Your task to perform on an android device: toggle javascript in the chrome app Image 0: 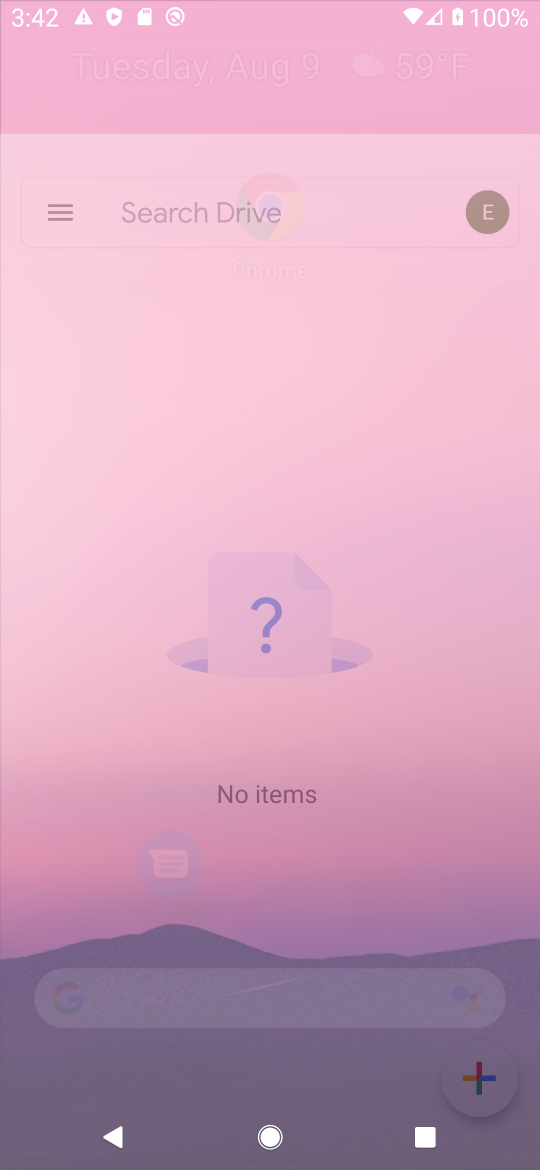
Step 0: press back button
Your task to perform on an android device: toggle javascript in the chrome app Image 1: 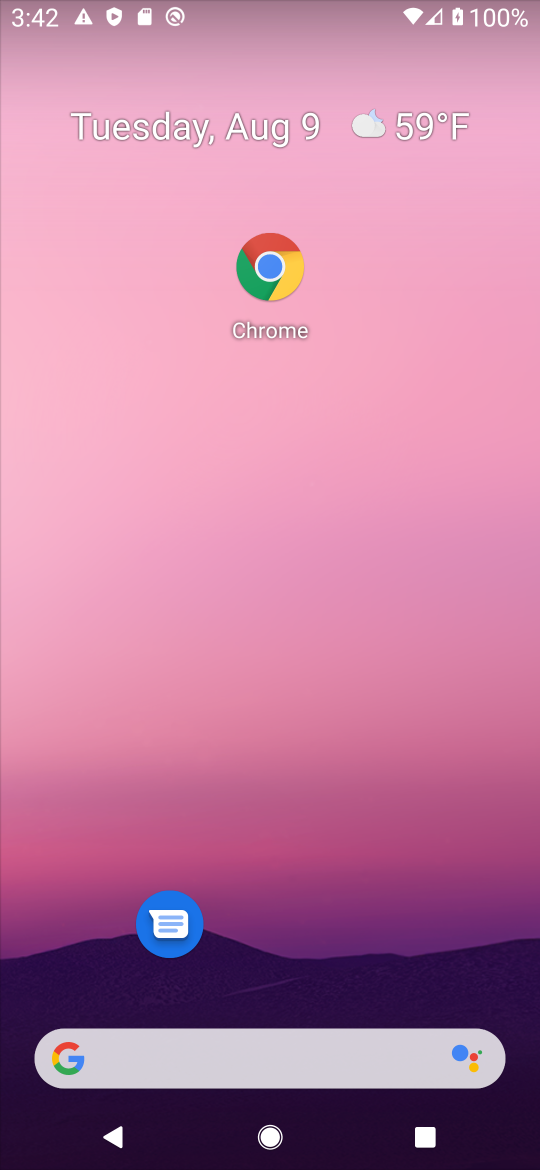
Step 1: press home button
Your task to perform on an android device: toggle javascript in the chrome app Image 2: 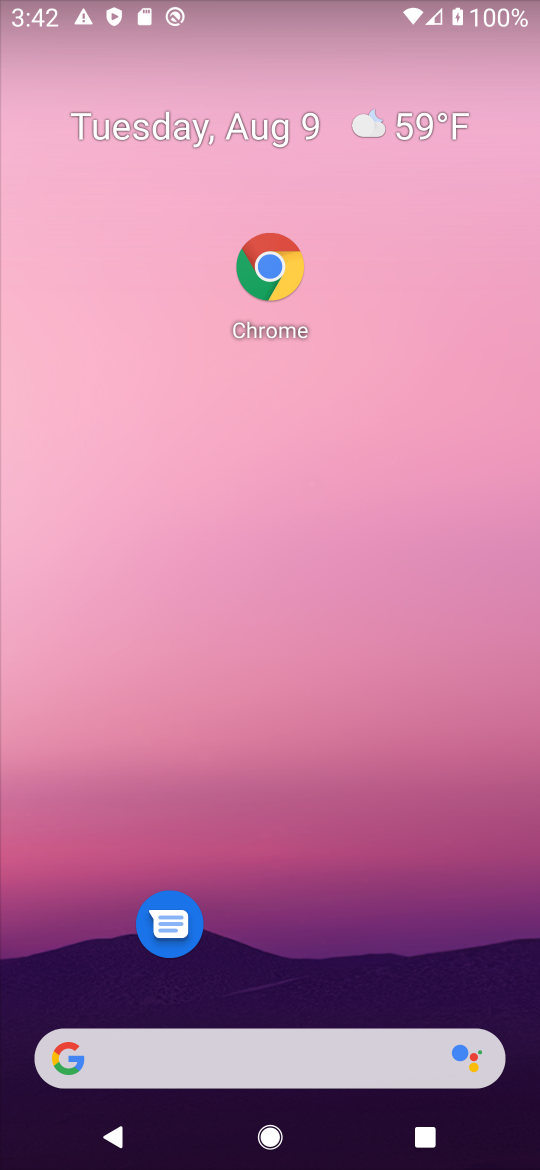
Step 2: drag from (355, 899) to (217, 278)
Your task to perform on an android device: toggle javascript in the chrome app Image 3: 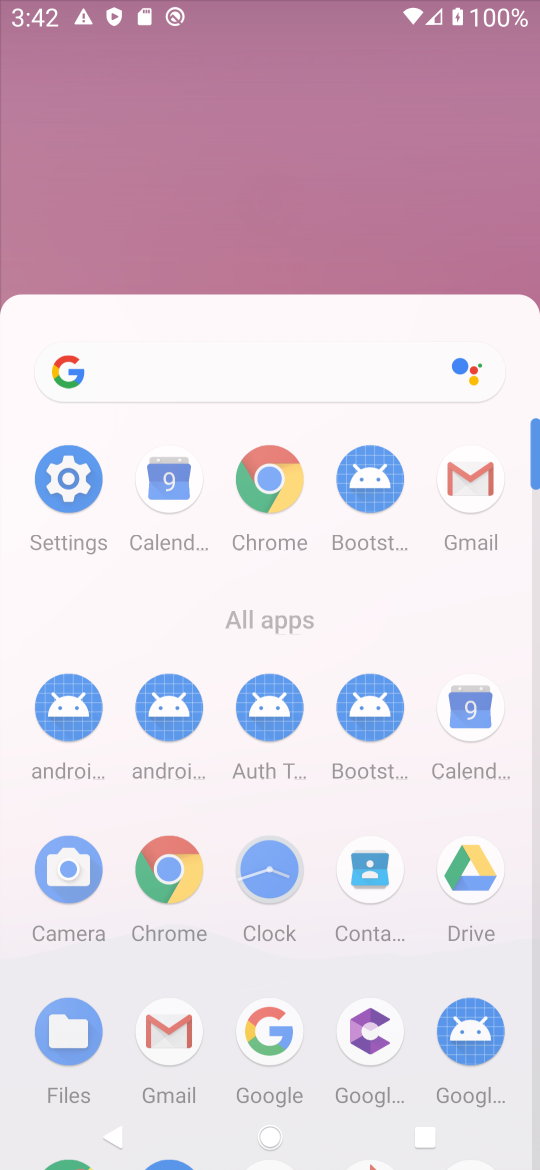
Step 3: press back button
Your task to perform on an android device: toggle javascript in the chrome app Image 4: 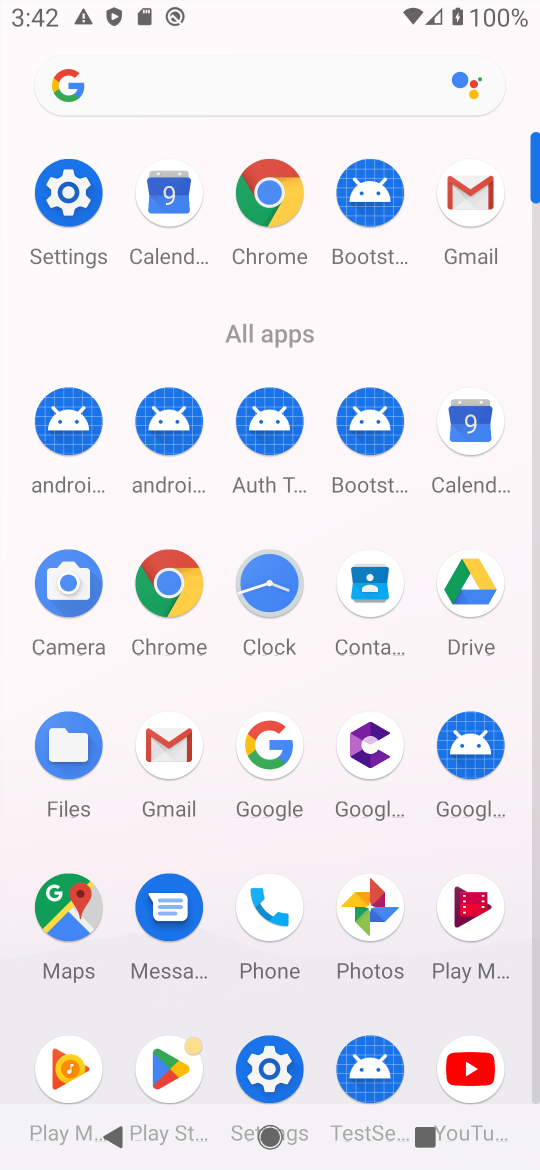
Step 4: drag from (234, 543) to (186, 192)
Your task to perform on an android device: toggle javascript in the chrome app Image 5: 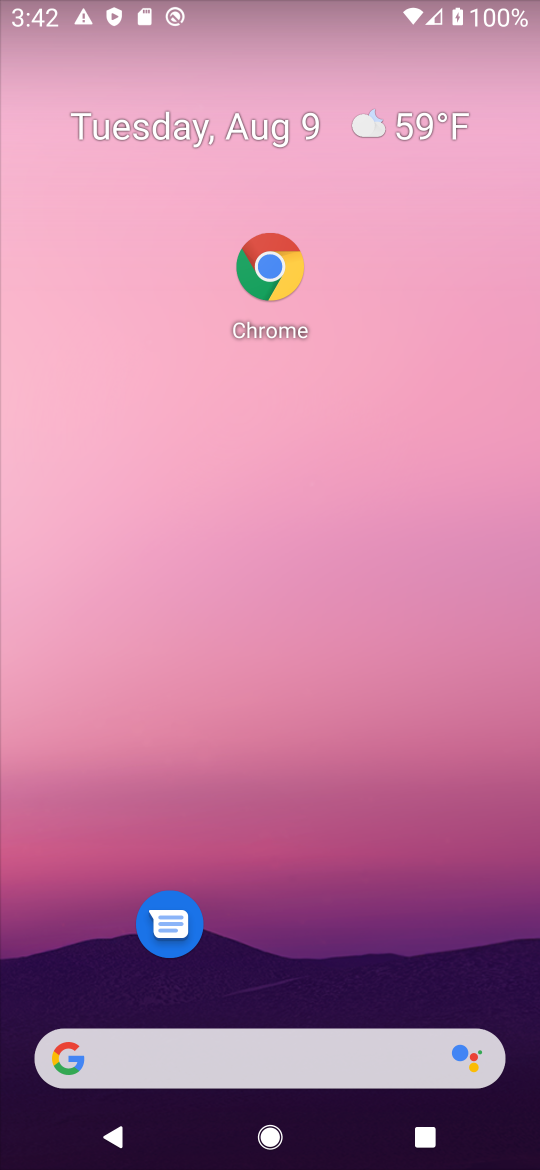
Step 5: click (269, 249)
Your task to perform on an android device: toggle javascript in the chrome app Image 6: 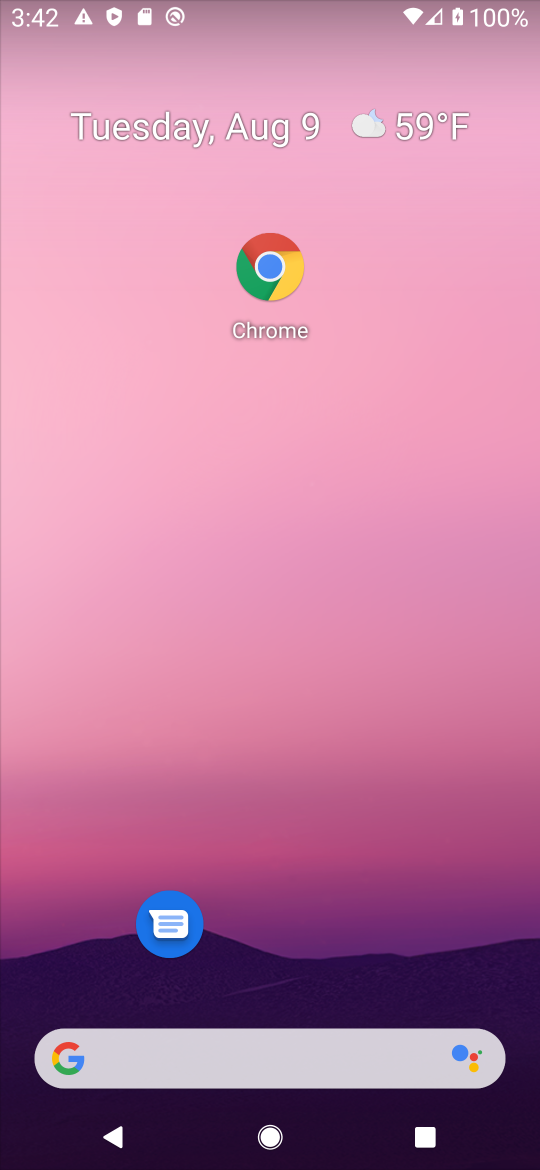
Step 6: click (270, 248)
Your task to perform on an android device: toggle javascript in the chrome app Image 7: 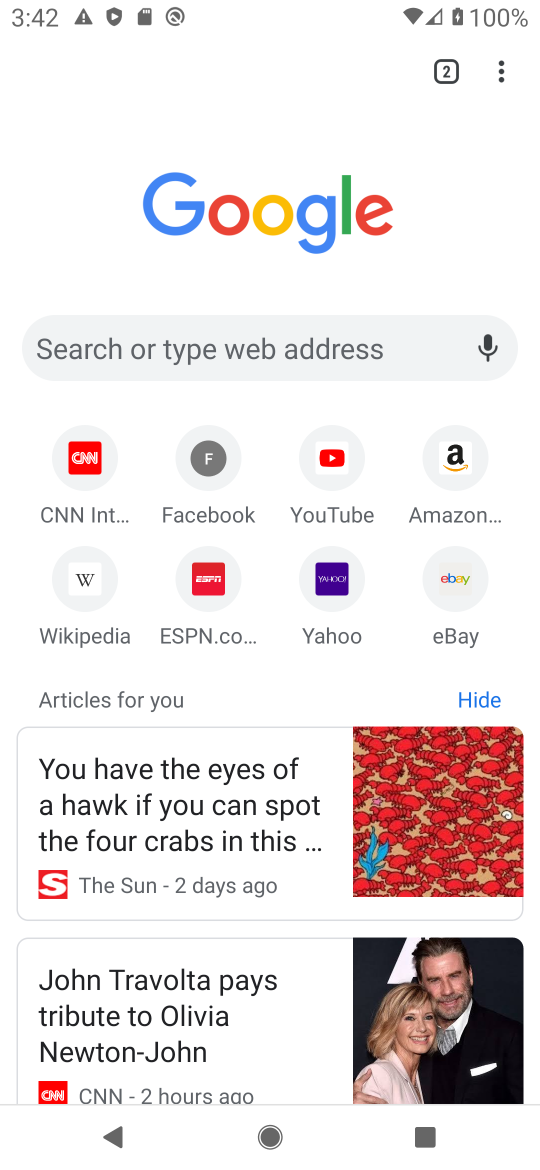
Step 7: drag from (502, 74) to (247, 602)
Your task to perform on an android device: toggle javascript in the chrome app Image 8: 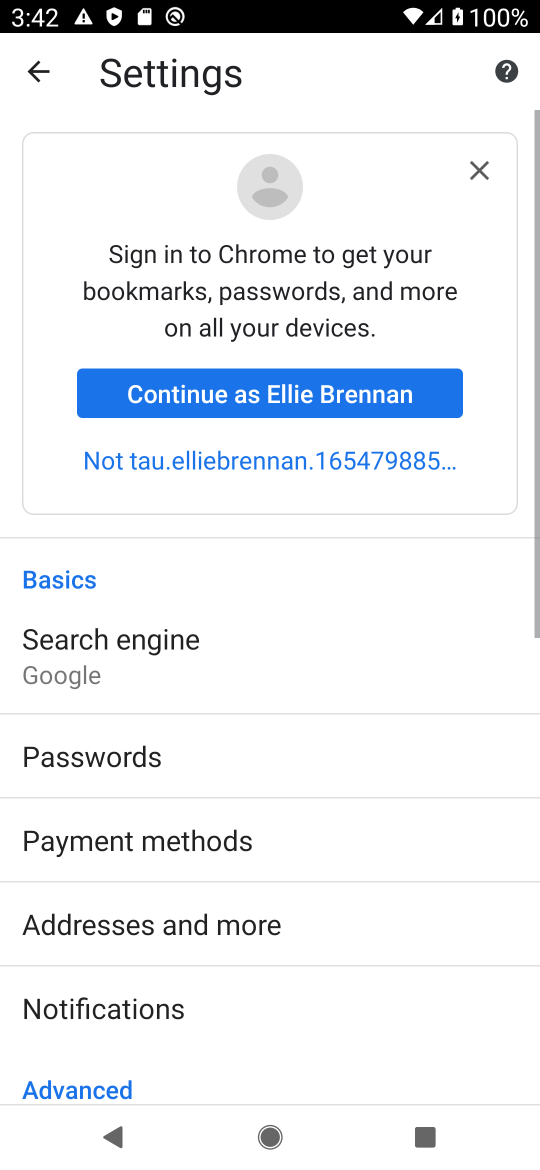
Step 8: drag from (224, 955) to (193, 229)
Your task to perform on an android device: toggle javascript in the chrome app Image 9: 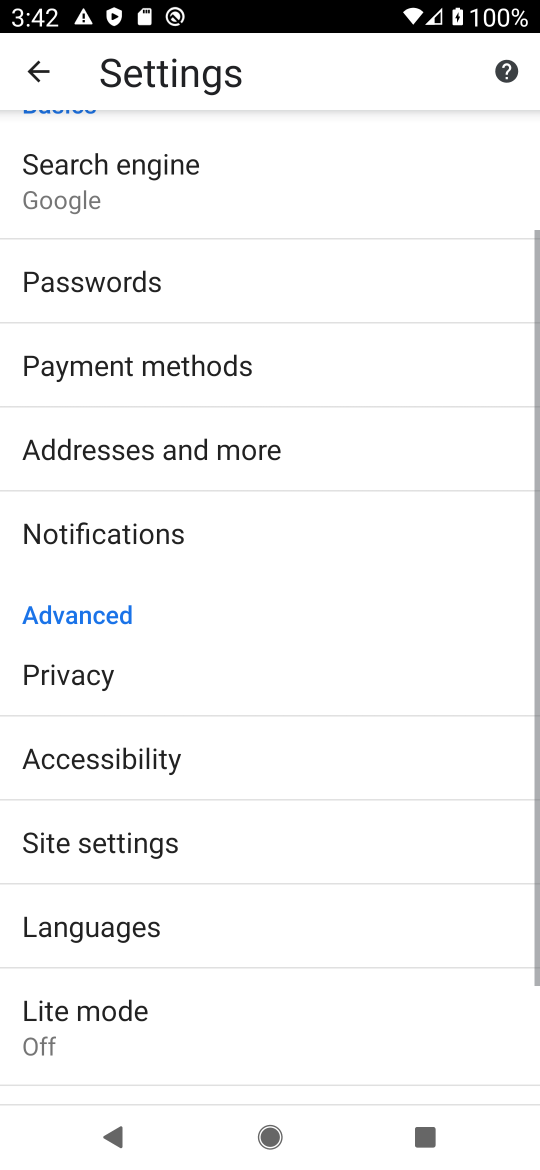
Step 9: drag from (228, 956) to (267, 397)
Your task to perform on an android device: toggle javascript in the chrome app Image 10: 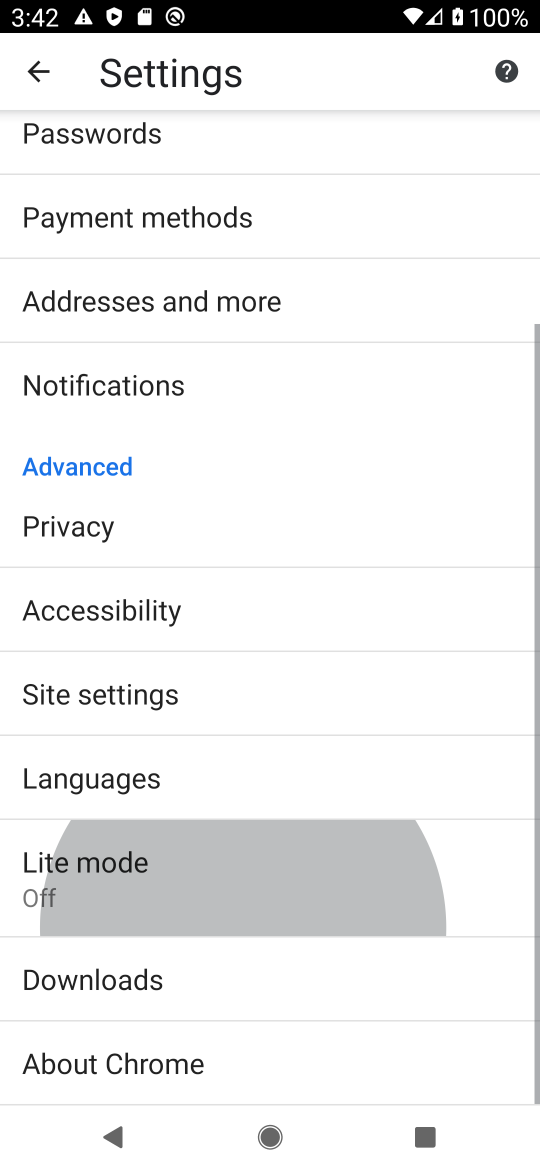
Step 10: drag from (235, 972) to (203, 348)
Your task to perform on an android device: toggle javascript in the chrome app Image 11: 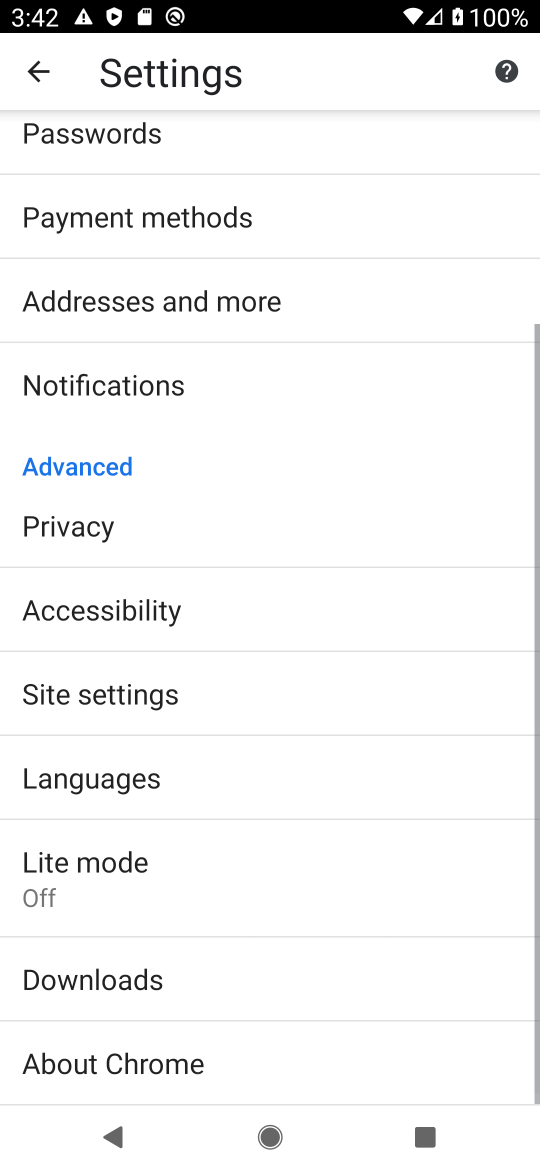
Step 11: drag from (232, 967) to (244, 480)
Your task to perform on an android device: toggle javascript in the chrome app Image 12: 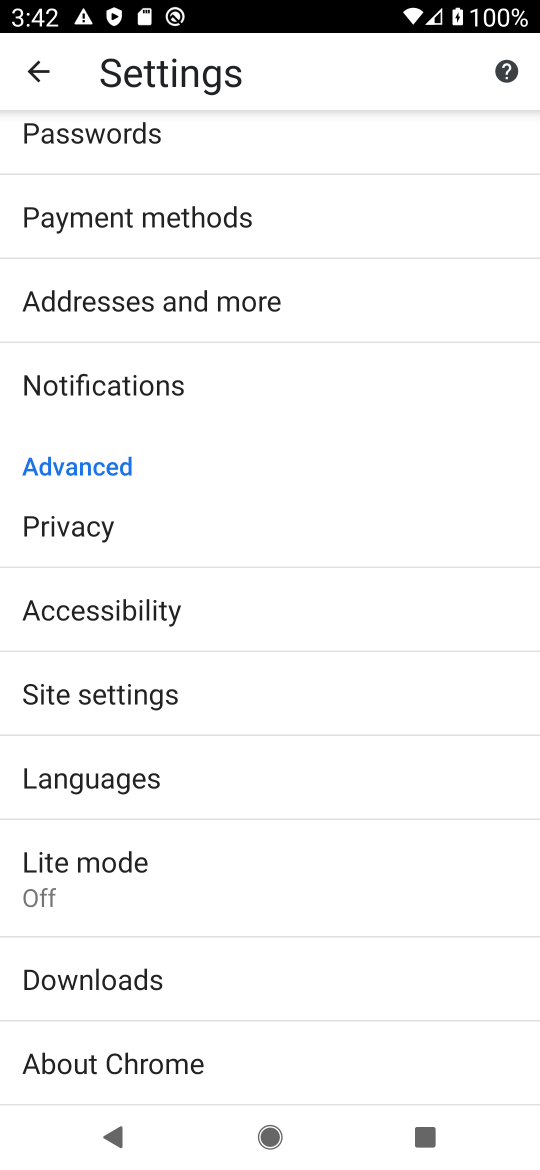
Step 12: drag from (112, 1020) to (73, 487)
Your task to perform on an android device: toggle javascript in the chrome app Image 13: 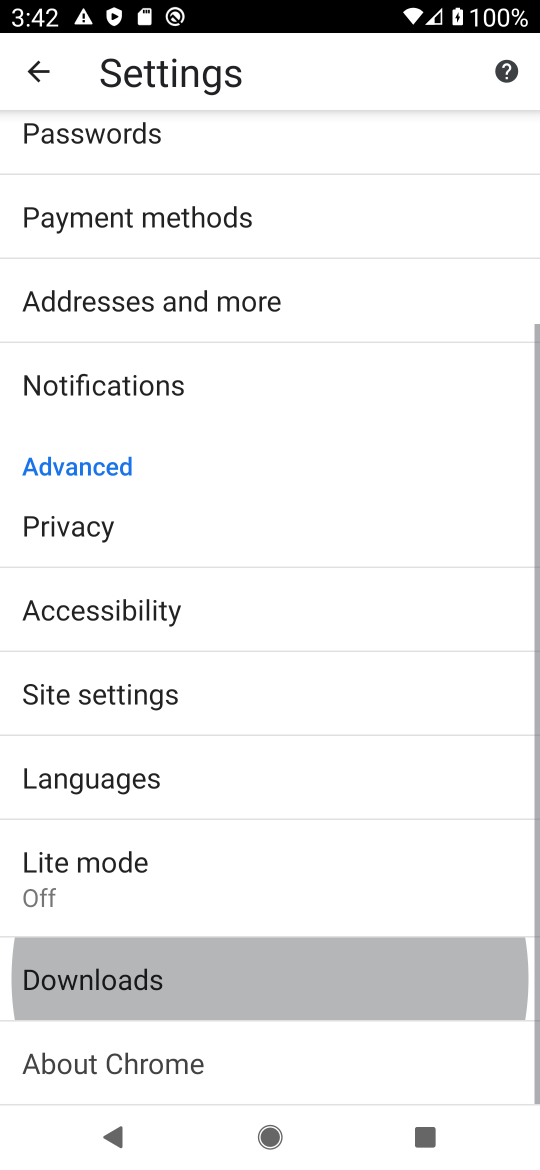
Step 13: drag from (193, 888) to (180, 557)
Your task to perform on an android device: toggle javascript in the chrome app Image 14: 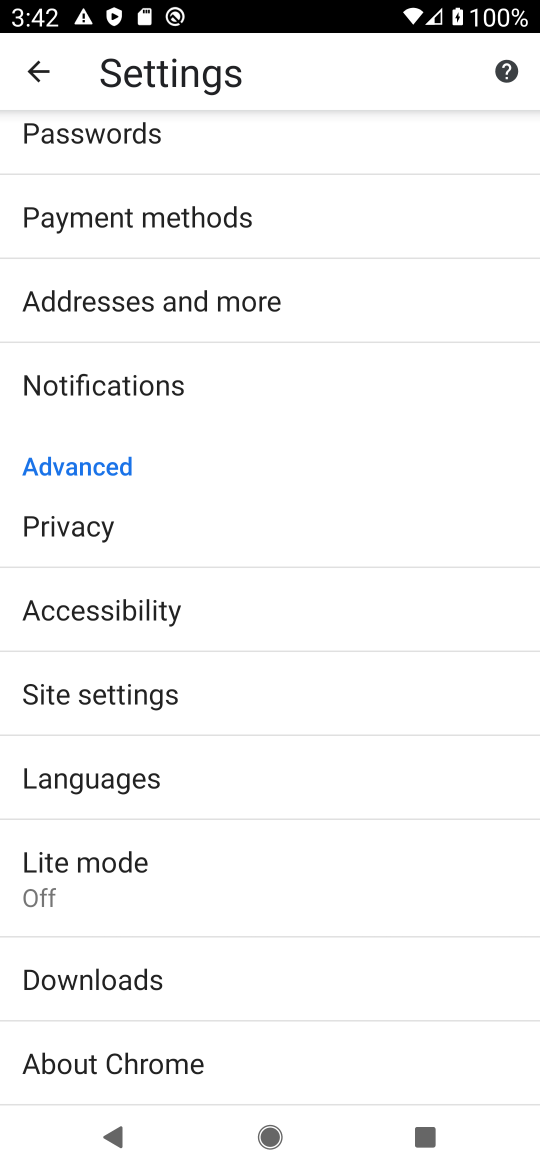
Step 14: click (77, 694)
Your task to perform on an android device: toggle javascript in the chrome app Image 15: 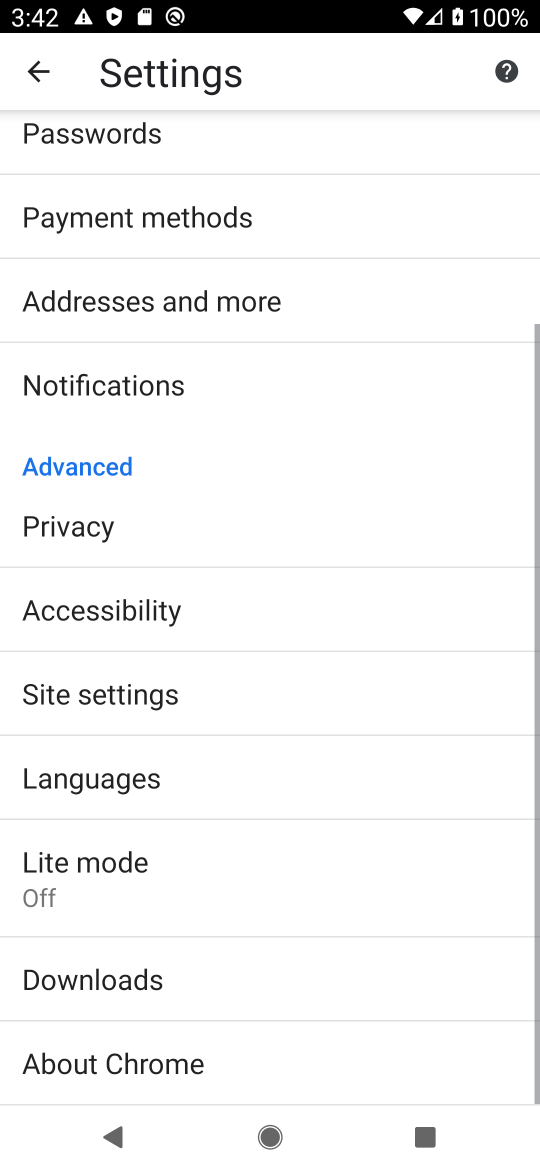
Step 15: click (74, 694)
Your task to perform on an android device: toggle javascript in the chrome app Image 16: 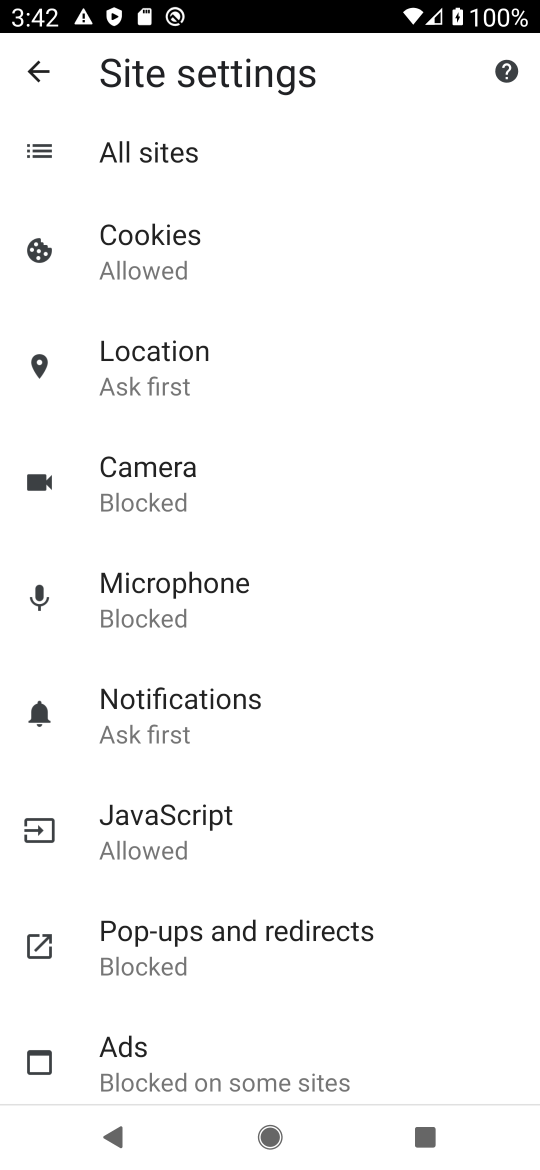
Step 16: click (149, 812)
Your task to perform on an android device: toggle javascript in the chrome app Image 17: 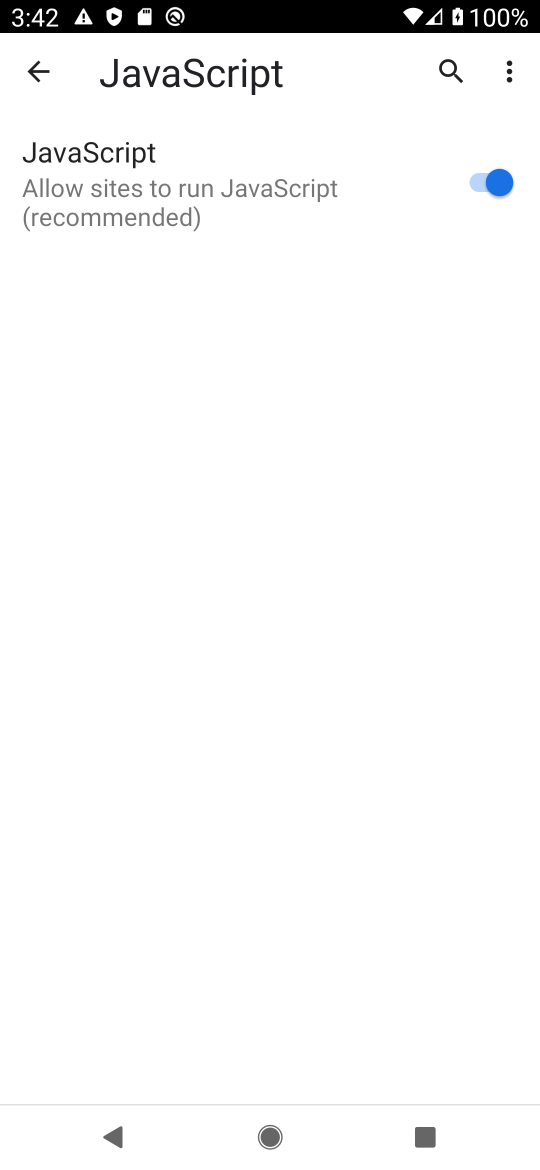
Step 17: click (500, 190)
Your task to perform on an android device: toggle javascript in the chrome app Image 18: 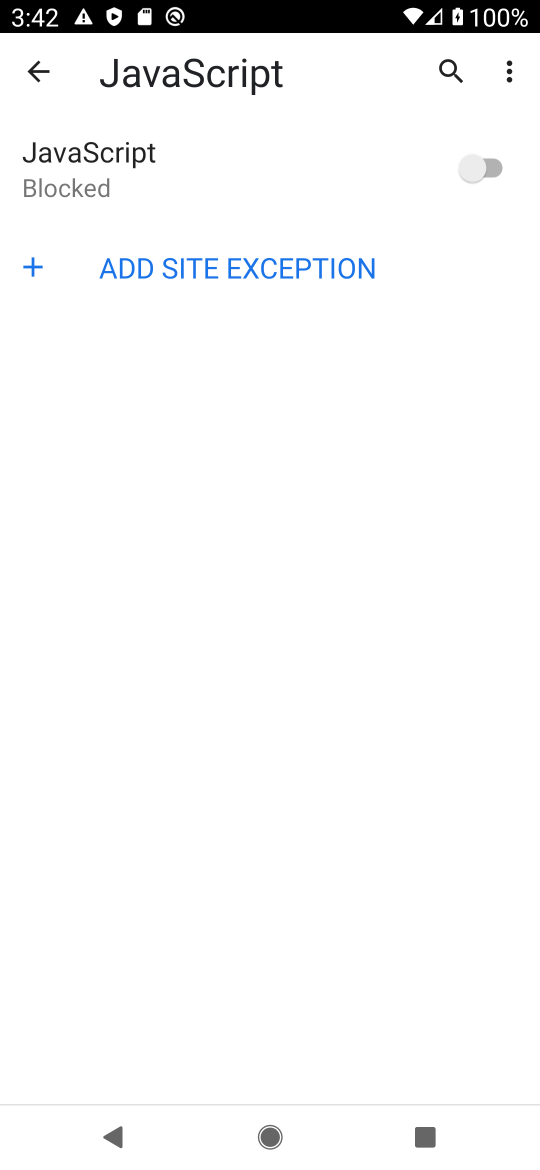
Step 18: task complete